Your task to perform on an android device: turn on location history Image 0: 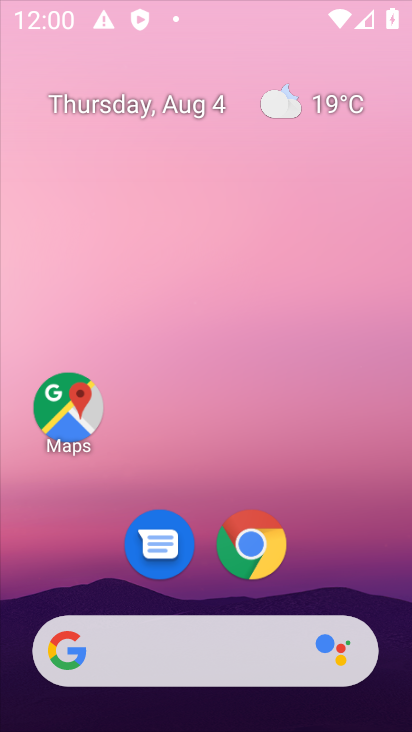
Step 0: click (245, 550)
Your task to perform on an android device: turn on location history Image 1: 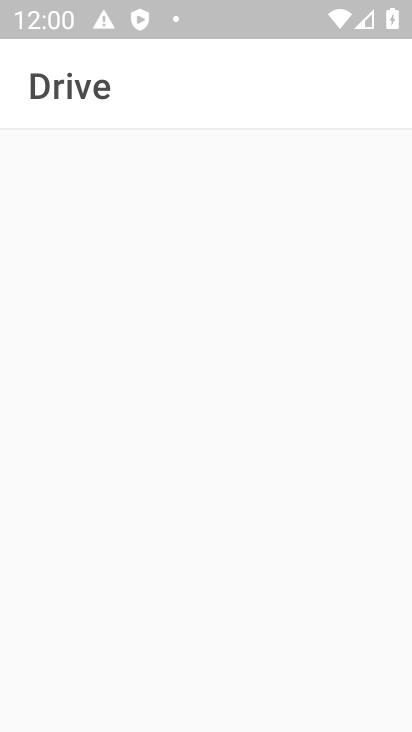
Step 1: press home button
Your task to perform on an android device: turn on location history Image 2: 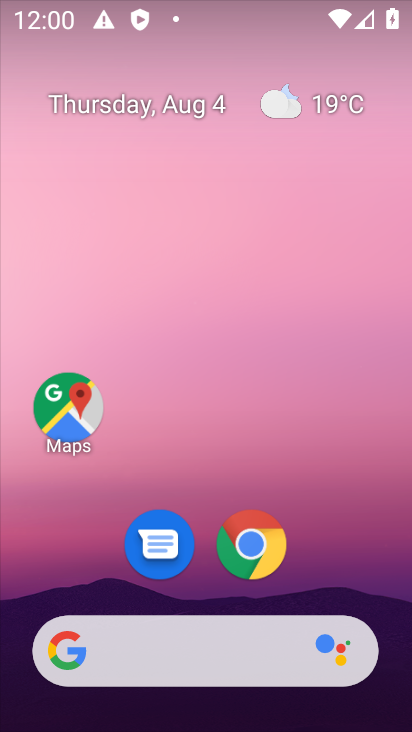
Step 2: drag from (400, 713) to (334, 125)
Your task to perform on an android device: turn on location history Image 3: 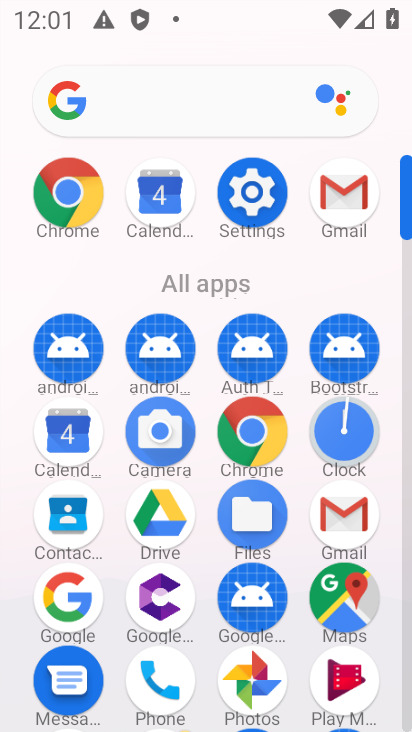
Step 3: click (257, 197)
Your task to perform on an android device: turn on location history Image 4: 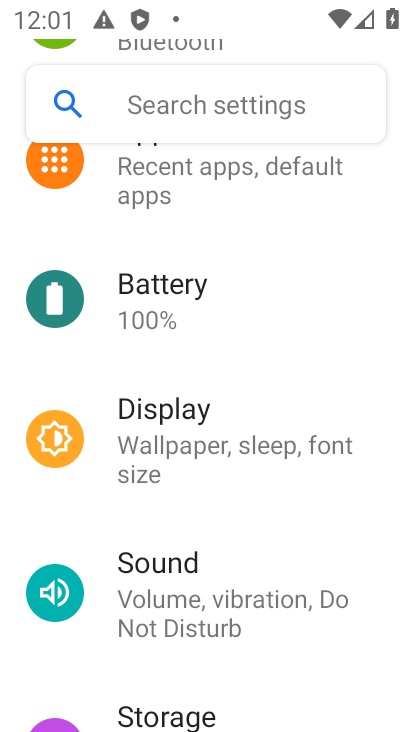
Step 4: drag from (348, 698) to (164, 163)
Your task to perform on an android device: turn on location history Image 5: 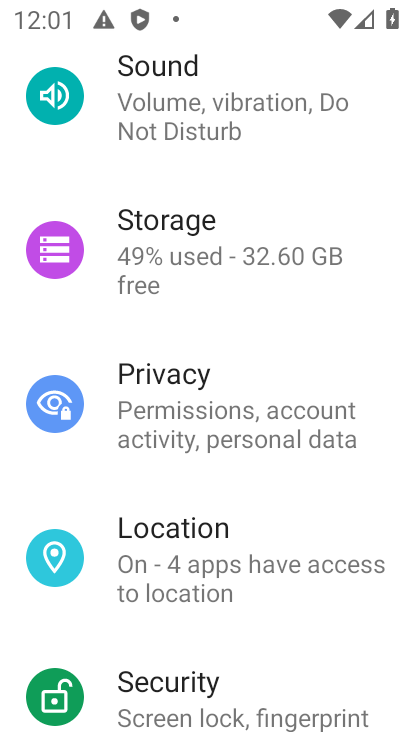
Step 5: click (173, 562)
Your task to perform on an android device: turn on location history Image 6: 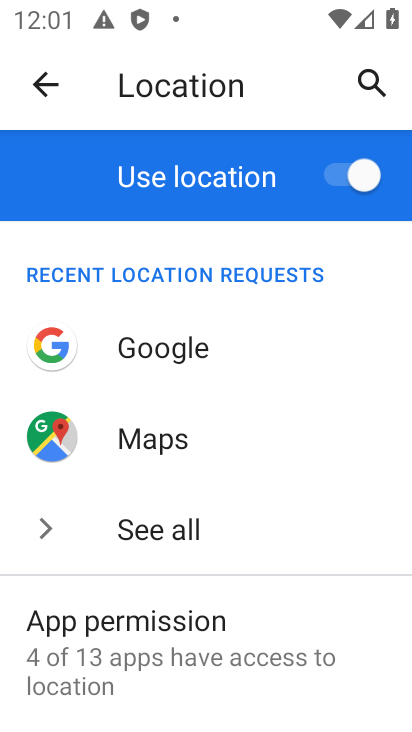
Step 6: drag from (283, 623) to (291, 302)
Your task to perform on an android device: turn on location history Image 7: 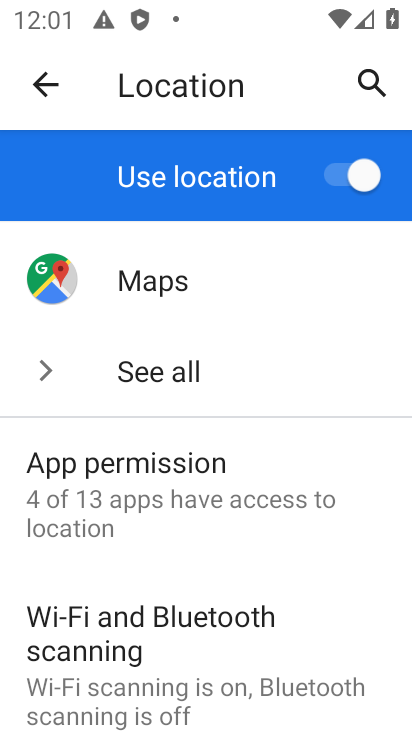
Step 7: drag from (257, 660) to (221, 348)
Your task to perform on an android device: turn on location history Image 8: 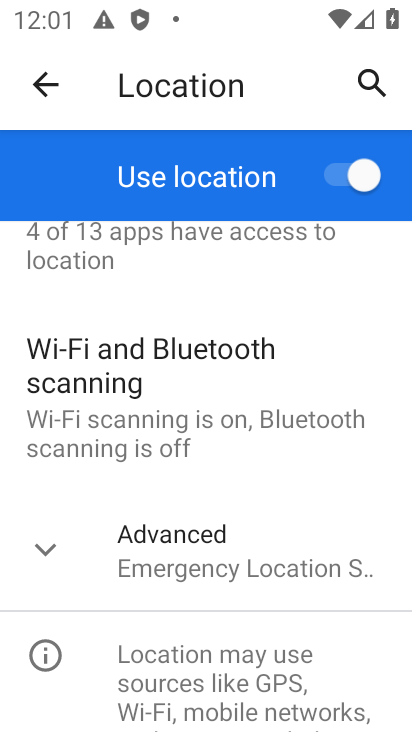
Step 8: click (37, 544)
Your task to perform on an android device: turn on location history Image 9: 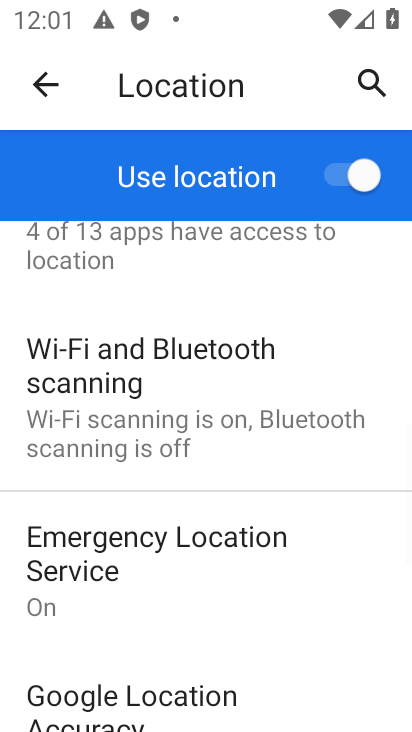
Step 9: drag from (385, 700) to (325, 372)
Your task to perform on an android device: turn on location history Image 10: 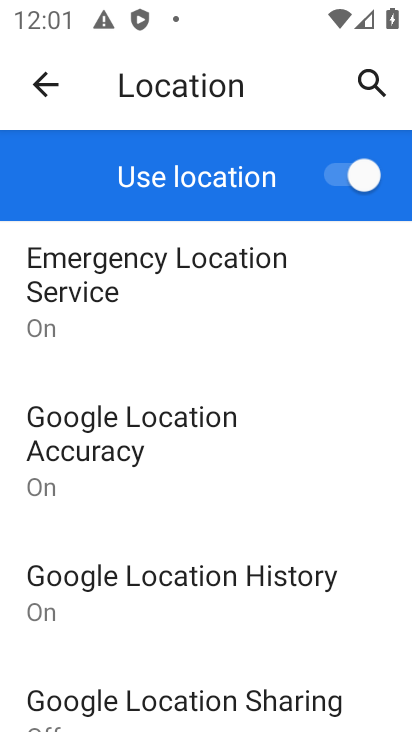
Step 10: click (190, 604)
Your task to perform on an android device: turn on location history Image 11: 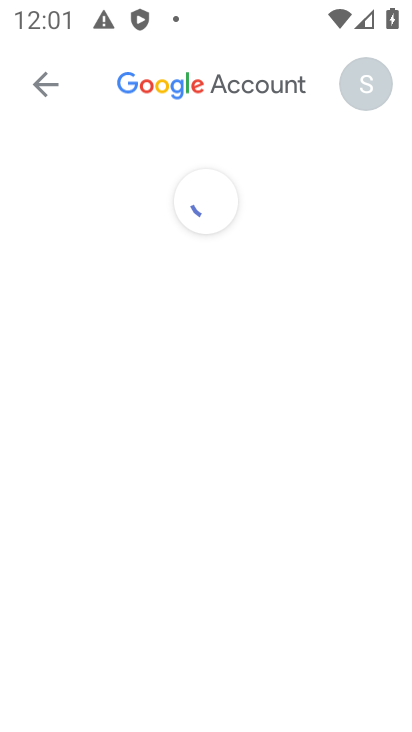
Step 11: task complete